Your task to perform on an android device: check battery use Image 0: 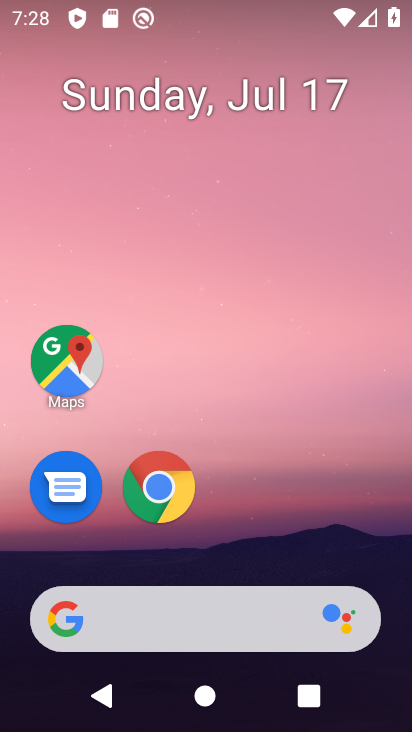
Step 0: drag from (364, 543) to (405, 81)
Your task to perform on an android device: check battery use Image 1: 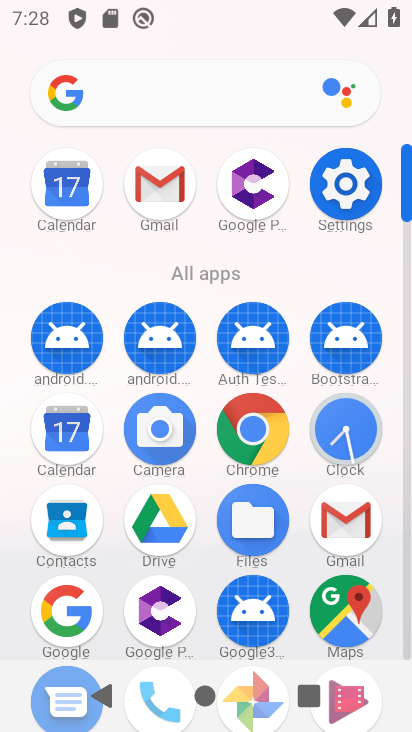
Step 1: click (344, 194)
Your task to perform on an android device: check battery use Image 2: 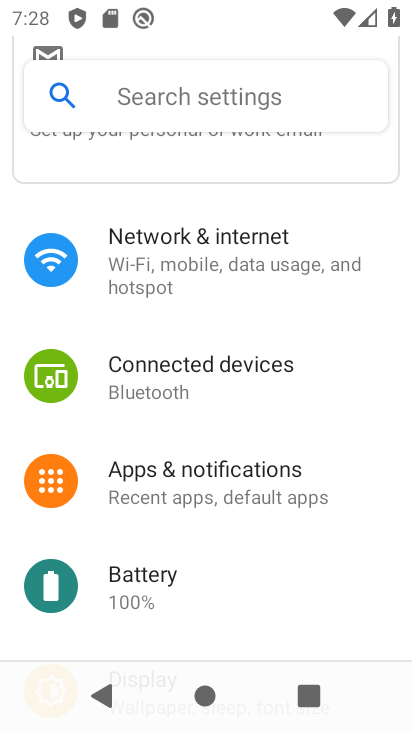
Step 2: drag from (341, 208) to (346, 325)
Your task to perform on an android device: check battery use Image 3: 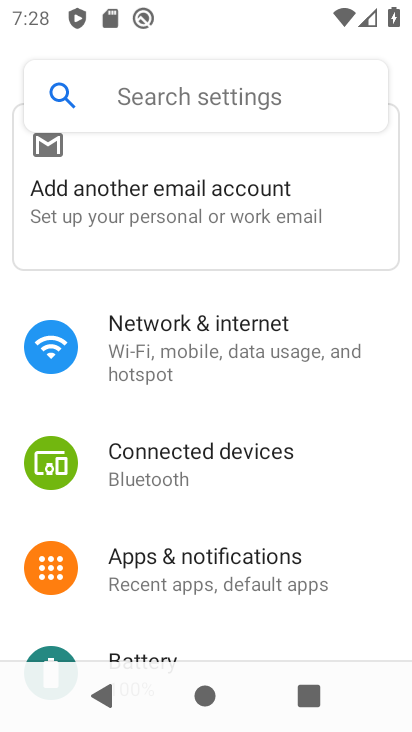
Step 3: drag from (364, 194) to (383, 454)
Your task to perform on an android device: check battery use Image 4: 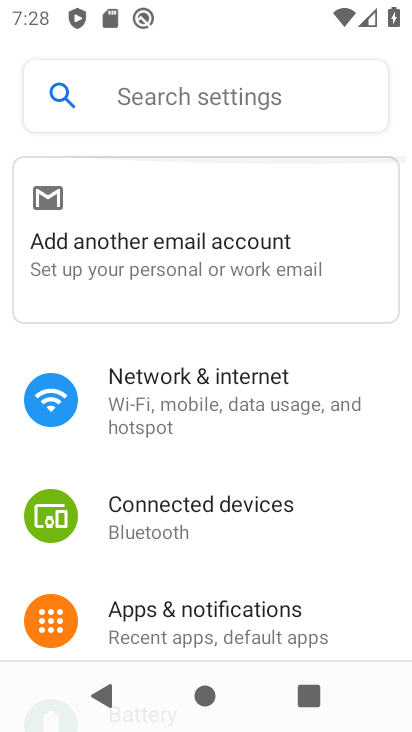
Step 4: drag from (371, 491) to (372, 407)
Your task to perform on an android device: check battery use Image 5: 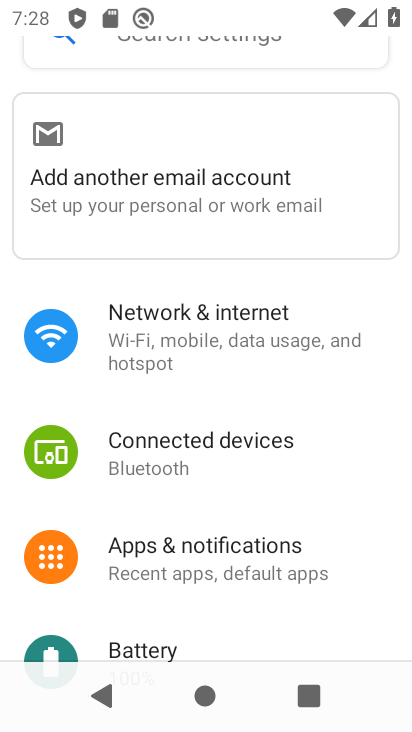
Step 5: drag from (357, 470) to (350, 361)
Your task to perform on an android device: check battery use Image 6: 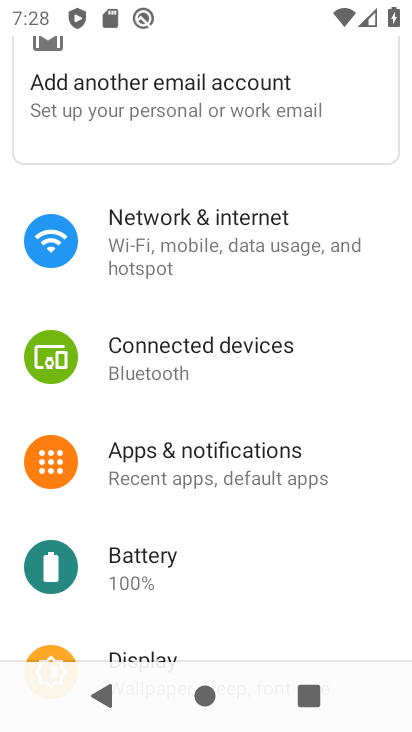
Step 6: drag from (319, 462) to (317, 347)
Your task to perform on an android device: check battery use Image 7: 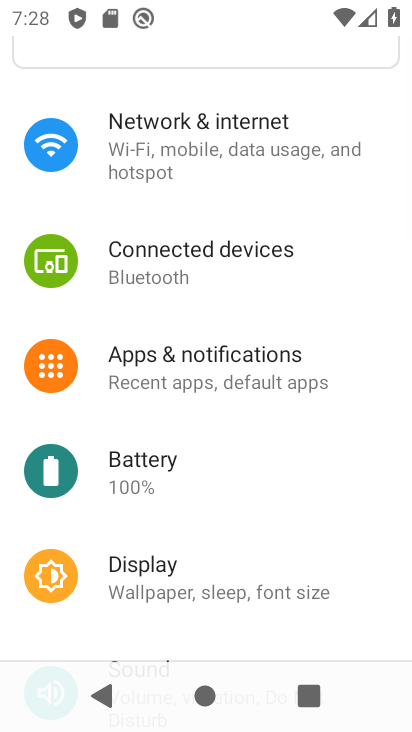
Step 7: drag from (354, 468) to (339, 355)
Your task to perform on an android device: check battery use Image 8: 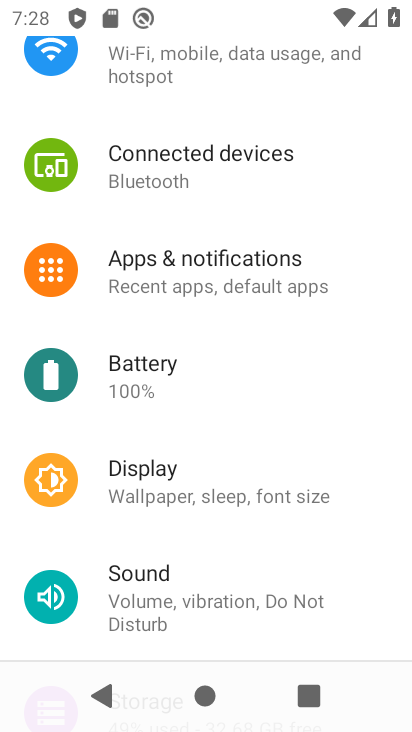
Step 8: drag from (356, 494) to (361, 377)
Your task to perform on an android device: check battery use Image 9: 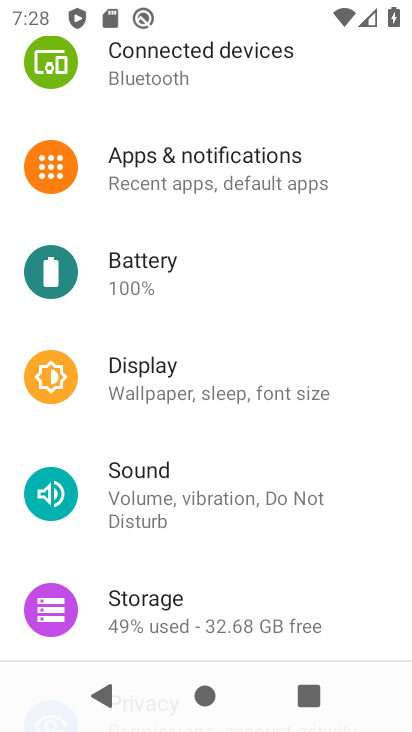
Step 9: click (246, 311)
Your task to perform on an android device: check battery use Image 10: 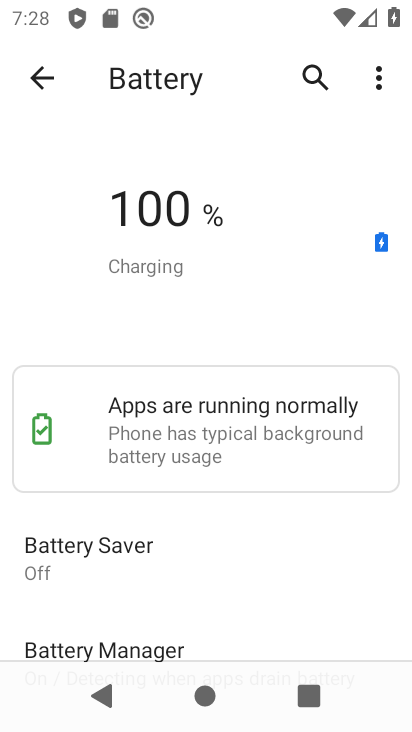
Step 10: click (376, 86)
Your task to perform on an android device: check battery use Image 11: 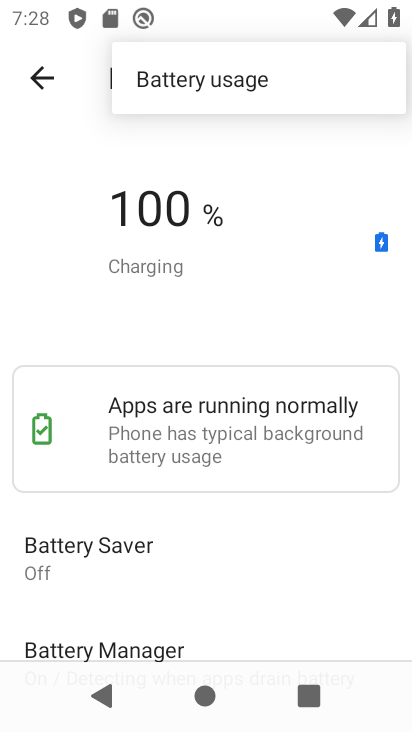
Step 11: click (254, 97)
Your task to perform on an android device: check battery use Image 12: 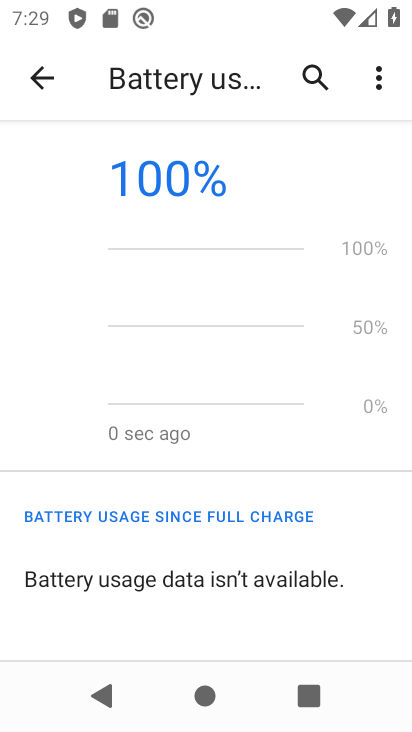
Step 12: task complete